Your task to perform on an android device: Search for Italian restaurants on Maps Image 0: 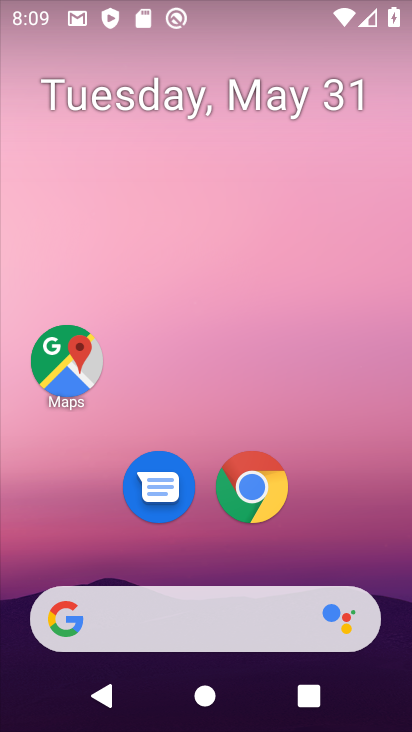
Step 0: click (89, 383)
Your task to perform on an android device: Search for Italian restaurants on Maps Image 1: 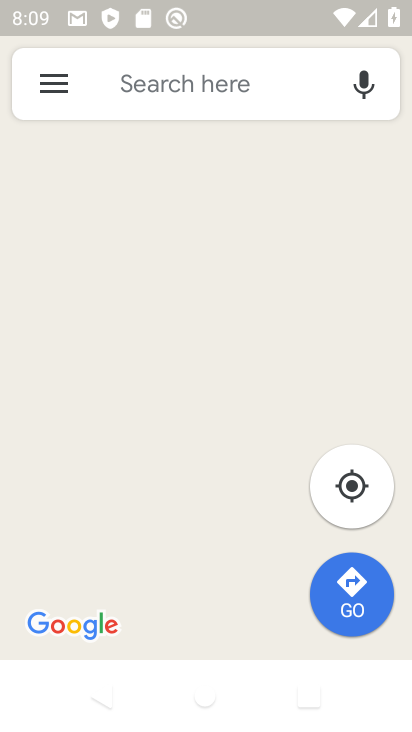
Step 1: click (265, 70)
Your task to perform on an android device: Search for Italian restaurants on Maps Image 2: 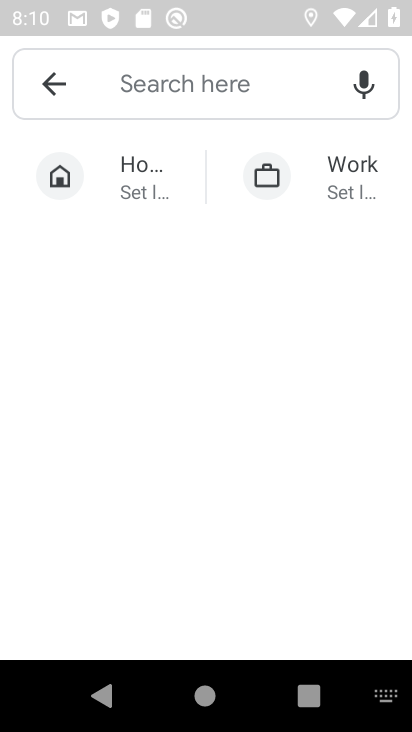
Step 2: type "italian"
Your task to perform on an android device: Search for Italian restaurants on Maps Image 3: 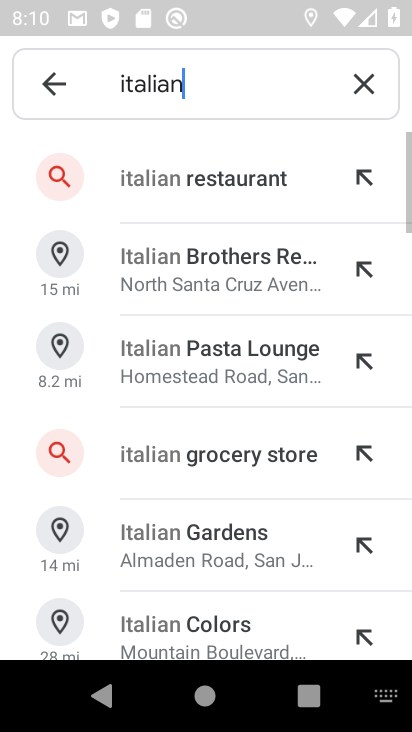
Step 3: click (202, 184)
Your task to perform on an android device: Search for Italian restaurants on Maps Image 4: 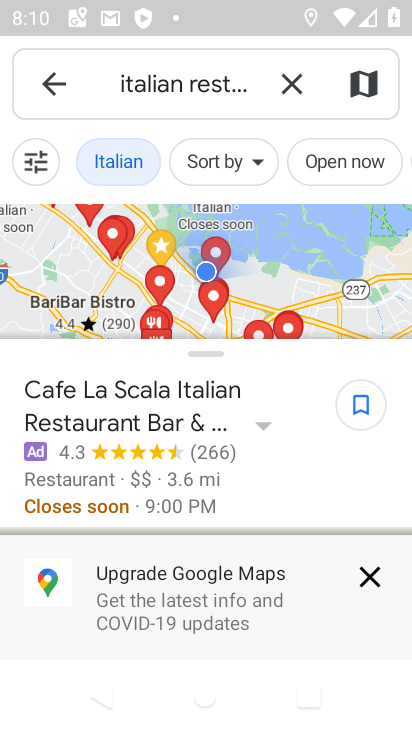
Step 4: task complete